Your task to perform on an android device: set the stopwatch Image 0: 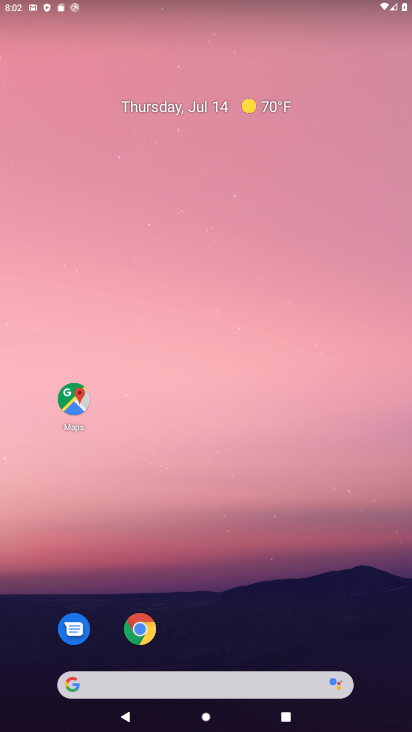
Step 0: drag from (266, 560) to (263, 139)
Your task to perform on an android device: set the stopwatch Image 1: 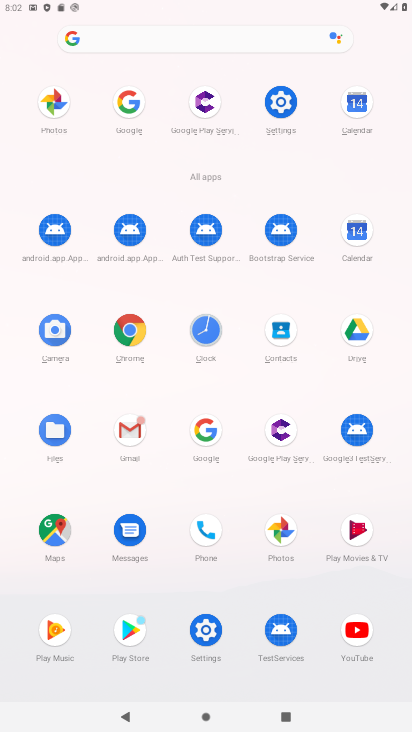
Step 1: click (200, 335)
Your task to perform on an android device: set the stopwatch Image 2: 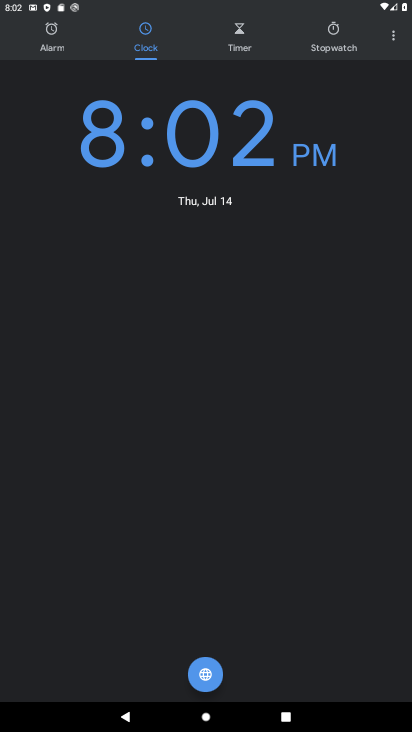
Step 2: click (331, 28)
Your task to perform on an android device: set the stopwatch Image 3: 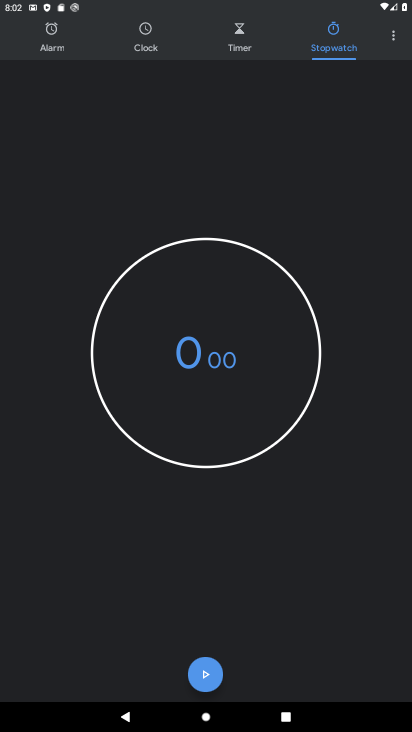
Step 3: click (213, 665)
Your task to perform on an android device: set the stopwatch Image 4: 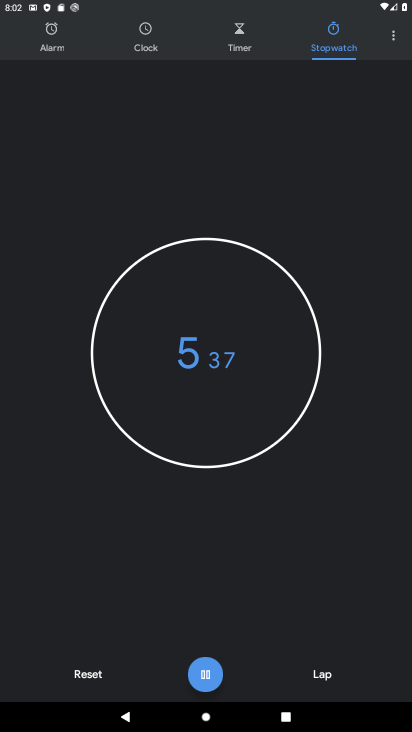
Step 4: task complete